Your task to perform on an android device: Open Google Chrome Image 0: 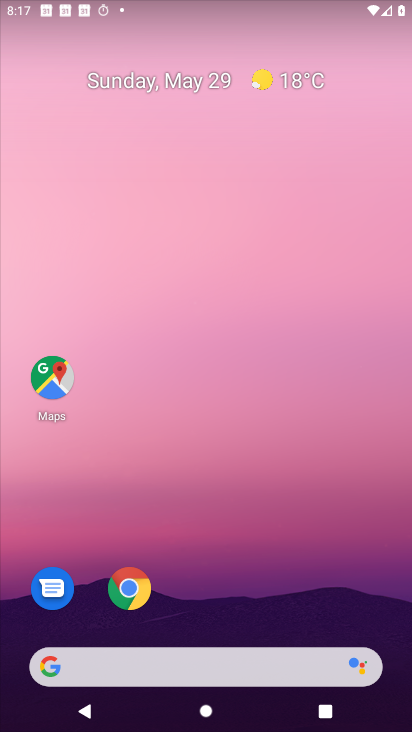
Step 0: click (126, 591)
Your task to perform on an android device: Open Google Chrome Image 1: 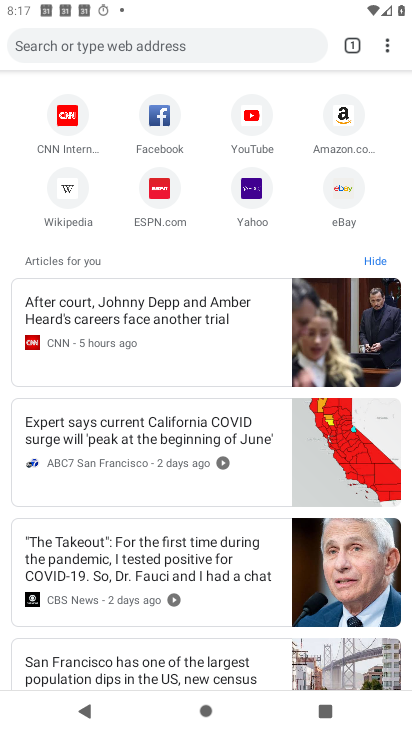
Step 1: task complete